Your task to perform on an android device: Search for pizza restaurants on Maps Image 0: 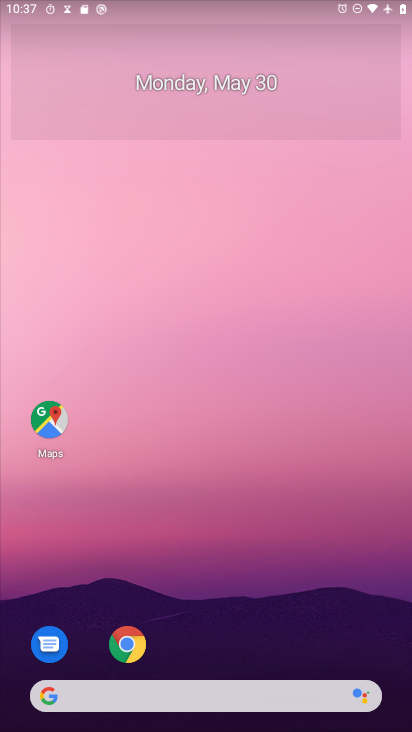
Step 0: click (50, 424)
Your task to perform on an android device: Search for pizza restaurants on Maps Image 1: 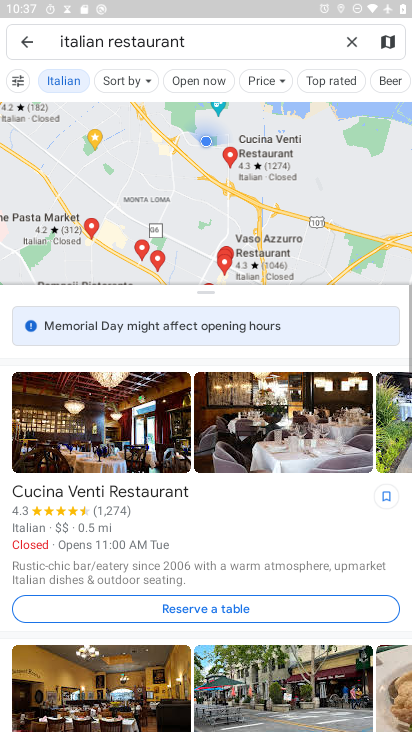
Step 1: click (352, 44)
Your task to perform on an android device: Search for pizza restaurants on Maps Image 2: 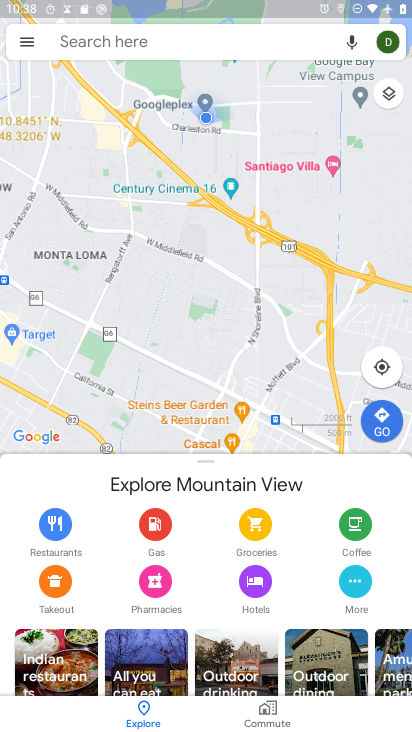
Step 2: click (24, 42)
Your task to perform on an android device: Search for pizza restaurants on Maps Image 3: 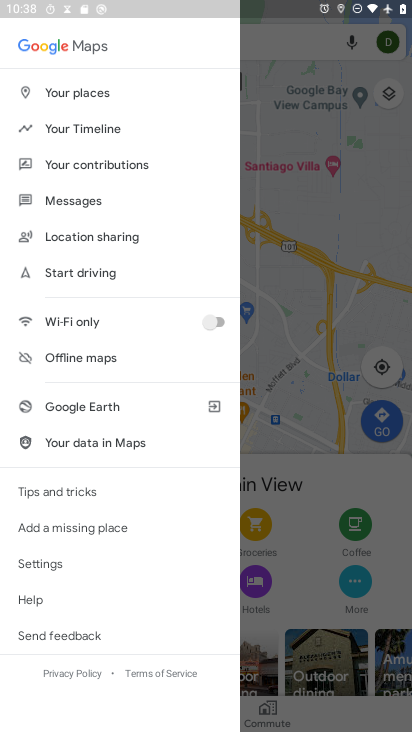
Step 3: click (285, 87)
Your task to perform on an android device: Search for pizza restaurants on Maps Image 4: 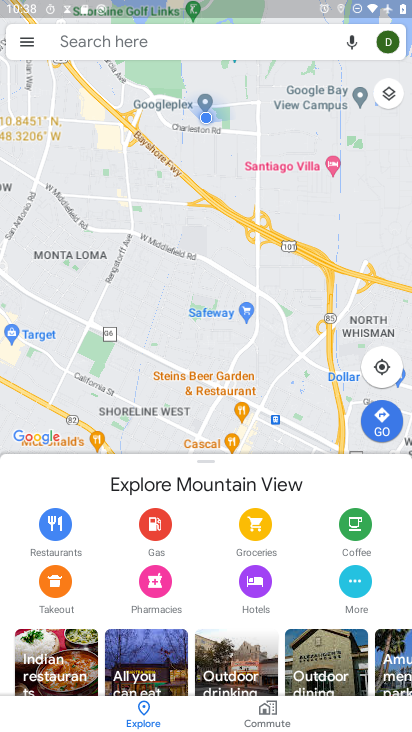
Step 4: click (219, 52)
Your task to perform on an android device: Search for pizza restaurants on Maps Image 5: 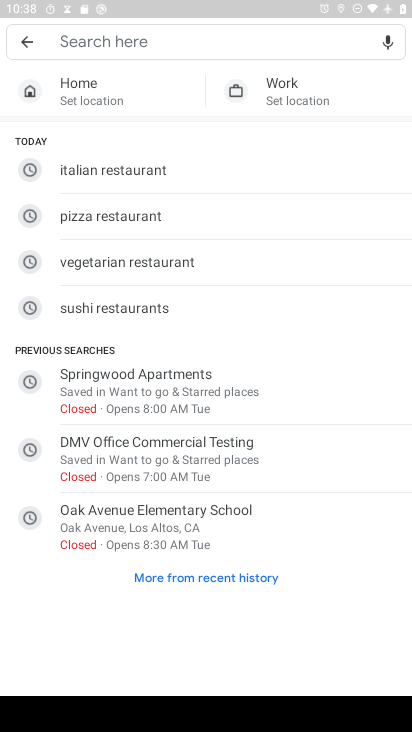
Step 5: click (179, 210)
Your task to perform on an android device: Search for pizza restaurants on Maps Image 6: 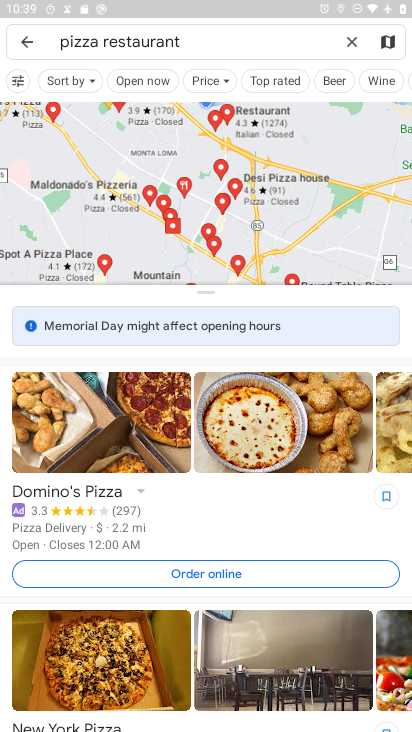
Step 6: task complete